Your task to perform on an android device: Open settings Image 0: 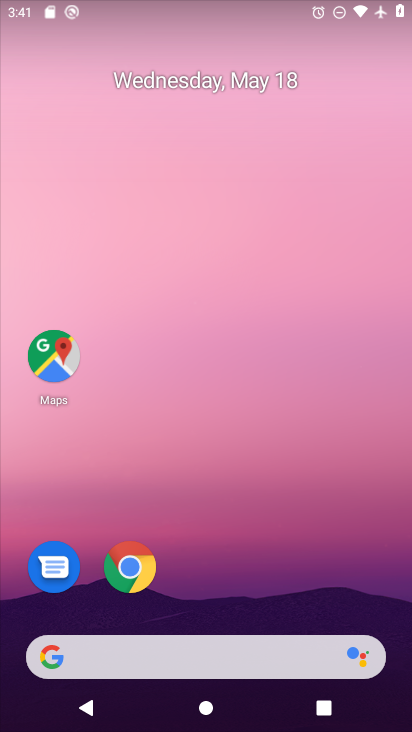
Step 0: drag from (208, 549) to (273, 157)
Your task to perform on an android device: Open settings Image 1: 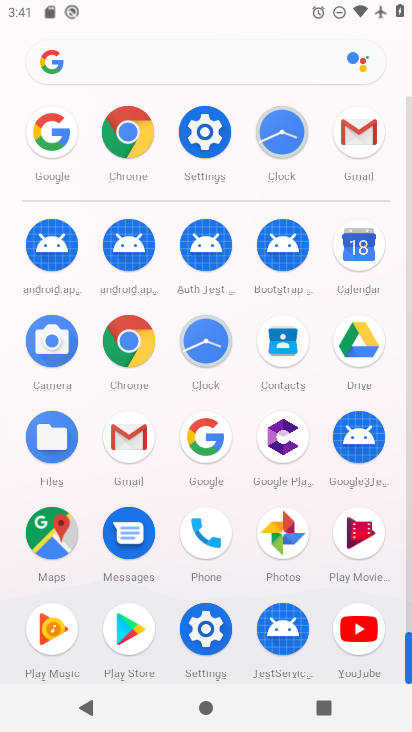
Step 1: click (208, 129)
Your task to perform on an android device: Open settings Image 2: 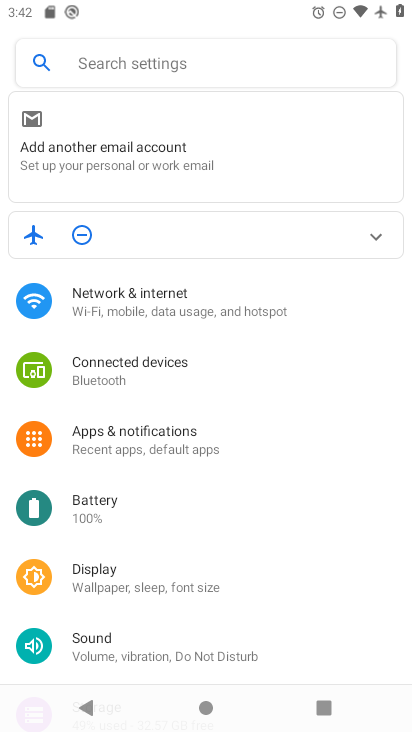
Step 2: task complete